Your task to perform on an android device: Go to privacy settings Image 0: 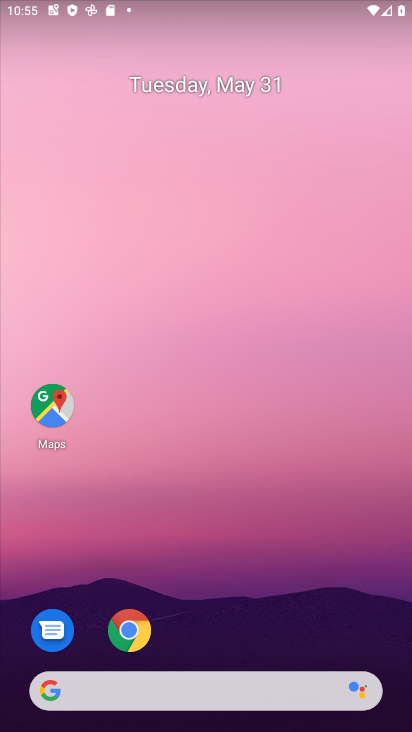
Step 0: press home button
Your task to perform on an android device: Go to privacy settings Image 1: 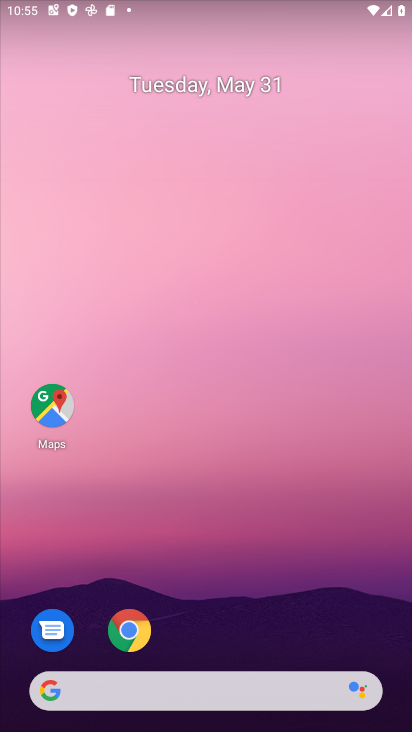
Step 1: drag from (299, 612) to (315, 129)
Your task to perform on an android device: Go to privacy settings Image 2: 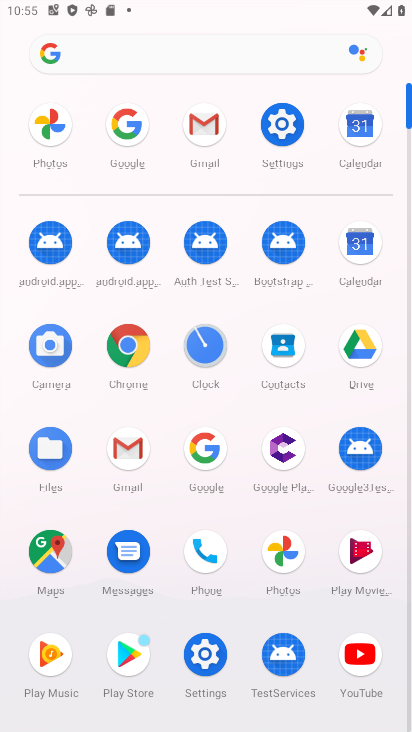
Step 2: click (284, 117)
Your task to perform on an android device: Go to privacy settings Image 3: 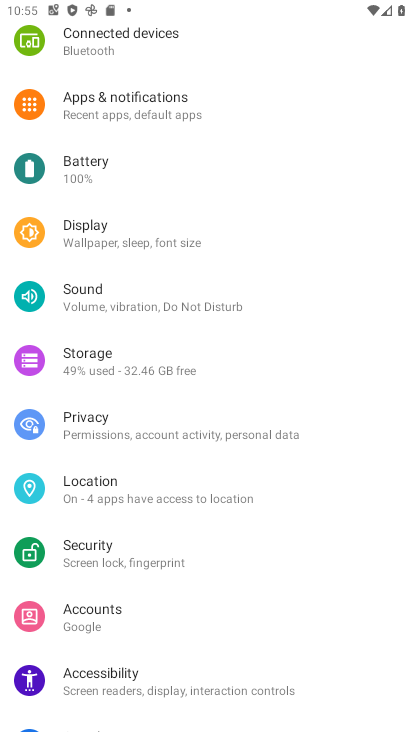
Step 3: click (204, 440)
Your task to perform on an android device: Go to privacy settings Image 4: 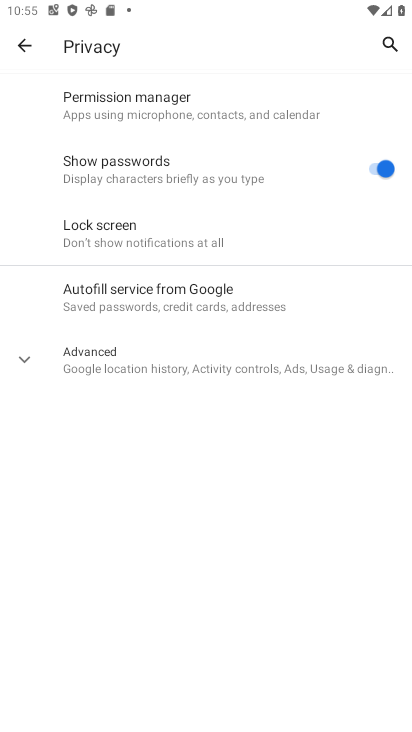
Step 4: task complete